Your task to perform on an android device: toggle show notifications on the lock screen Image 0: 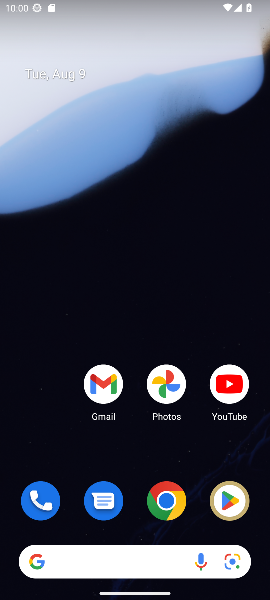
Step 0: drag from (132, 398) to (135, 96)
Your task to perform on an android device: toggle show notifications on the lock screen Image 1: 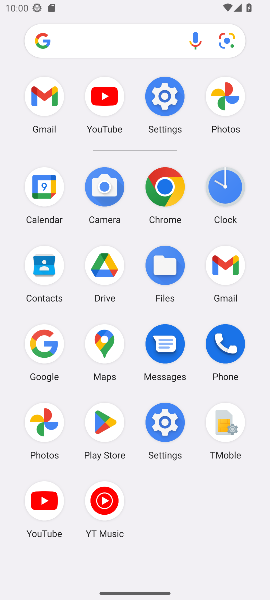
Step 1: click (159, 430)
Your task to perform on an android device: toggle show notifications on the lock screen Image 2: 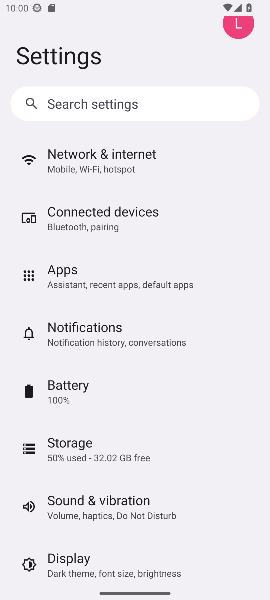
Step 2: click (108, 334)
Your task to perform on an android device: toggle show notifications on the lock screen Image 3: 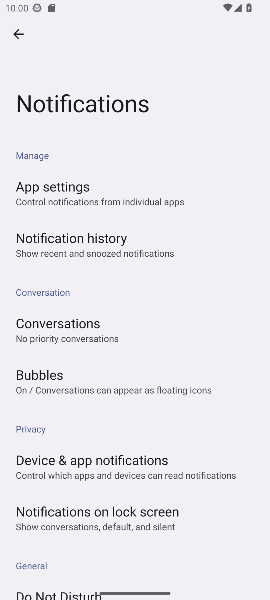
Step 3: click (103, 517)
Your task to perform on an android device: toggle show notifications on the lock screen Image 4: 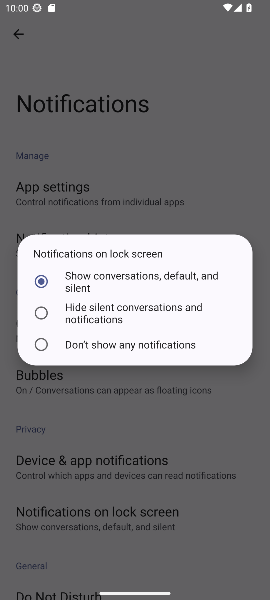
Step 4: click (41, 344)
Your task to perform on an android device: toggle show notifications on the lock screen Image 5: 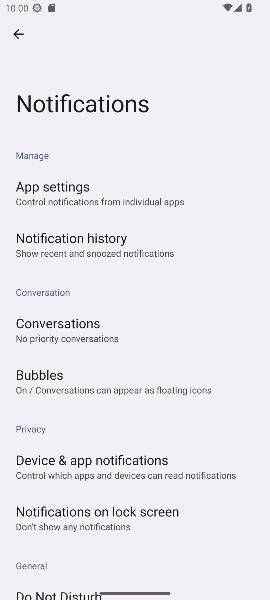
Step 5: task complete